Your task to perform on an android device: Open Chrome and go to settings Image 0: 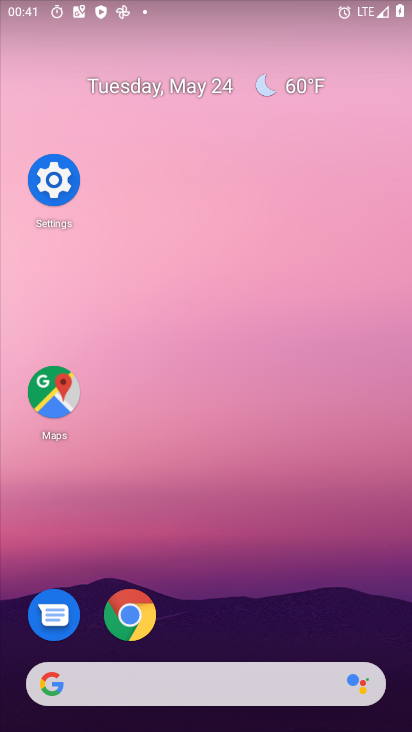
Step 0: click (133, 622)
Your task to perform on an android device: Open Chrome and go to settings Image 1: 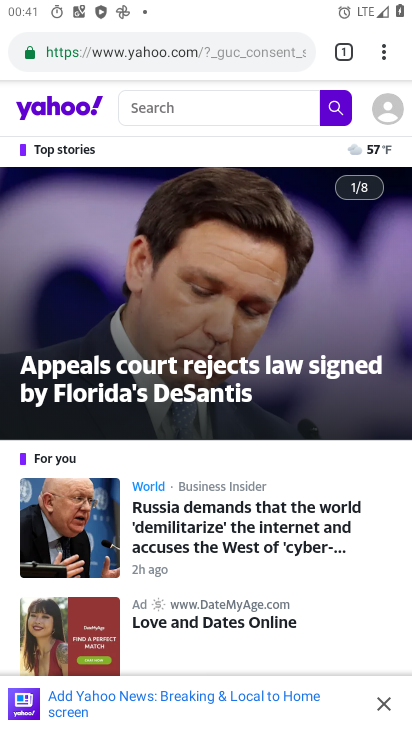
Step 1: click (378, 49)
Your task to perform on an android device: Open Chrome and go to settings Image 2: 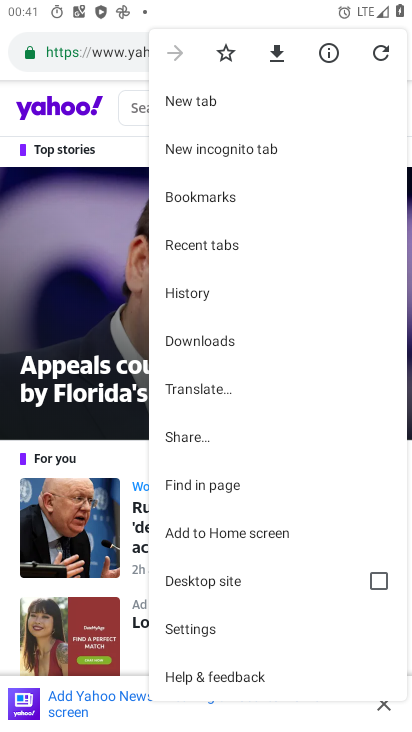
Step 2: click (223, 624)
Your task to perform on an android device: Open Chrome and go to settings Image 3: 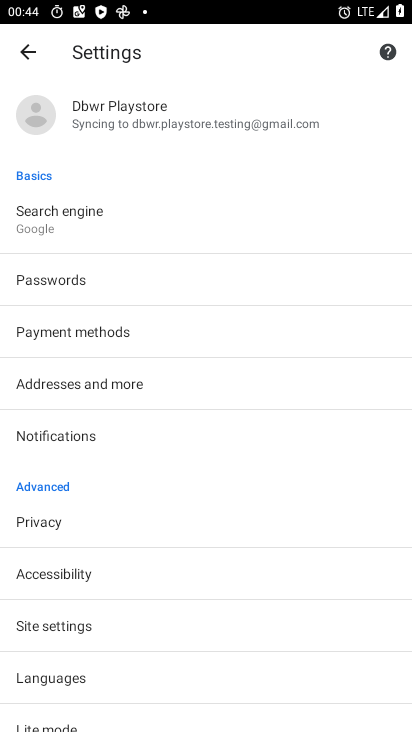
Step 3: task complete